Your task to perform on an android device: turn on javascript in the chrome app Image 0: 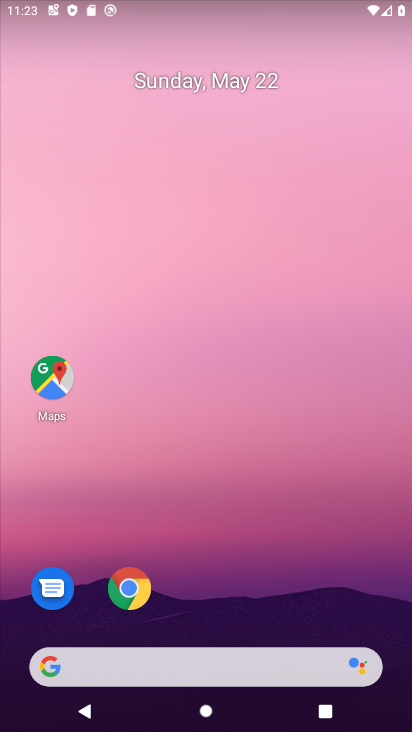
Step 0: click (127, 585)
Your task to perform on an android device: turn on javascript in the chrome app Image 1: 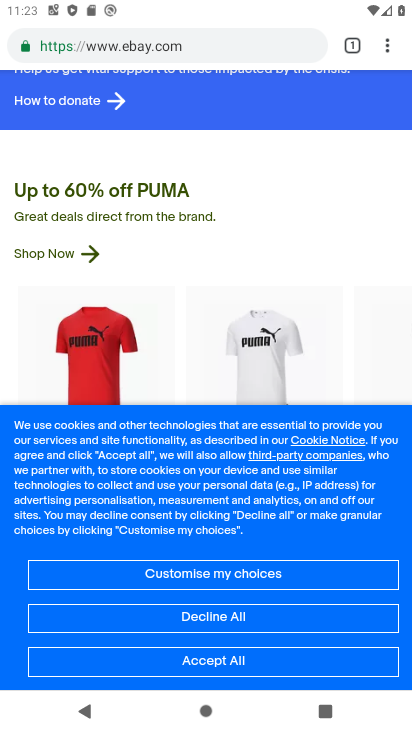
Step 1: click (356, 55)
Your task to perform on an android device: turn on javascript in the chrome app Image 2: 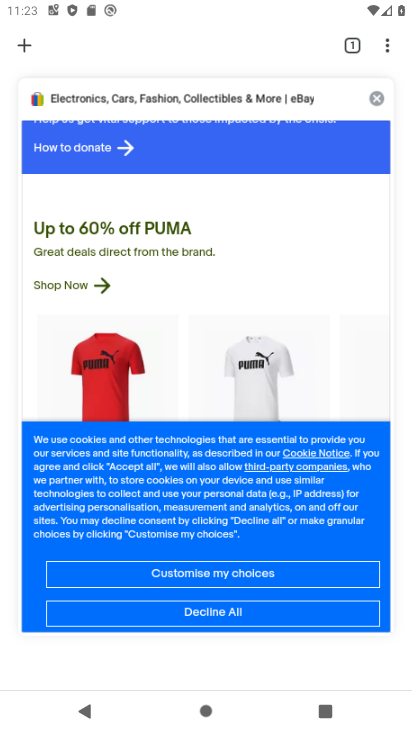
Step 2: click (353, 44)
Your task to perform on an android device: turn on javascript in the chrome app Image 3: 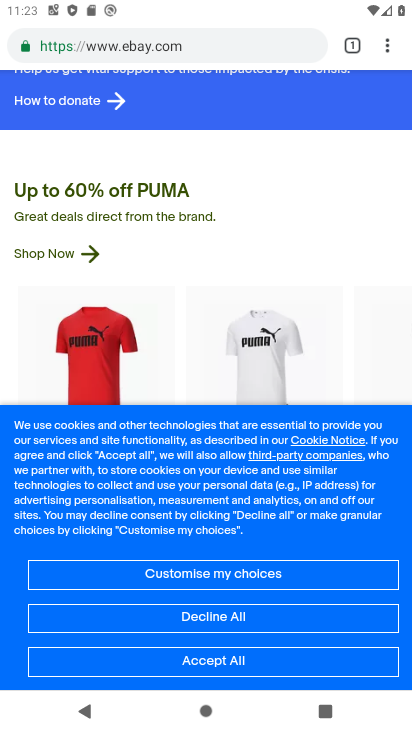
Step 3: click (352, 44)
Your task to perform on an android device: turn on javascript in the chrome app Image 4: 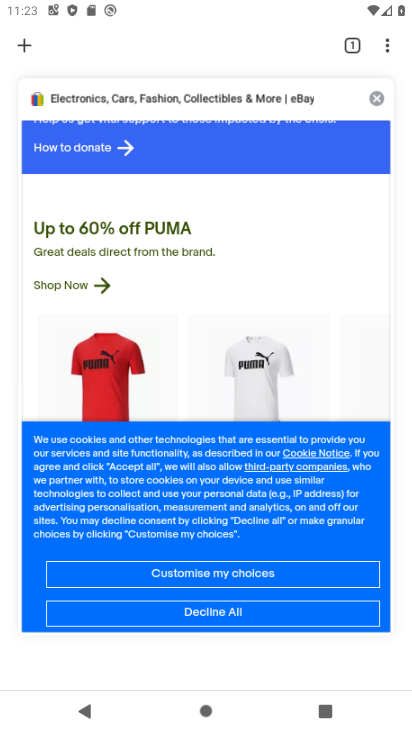
Step 4: click (374, 95)
Your task to perform on an android device: turn on javascript in the chrome app Image 5: 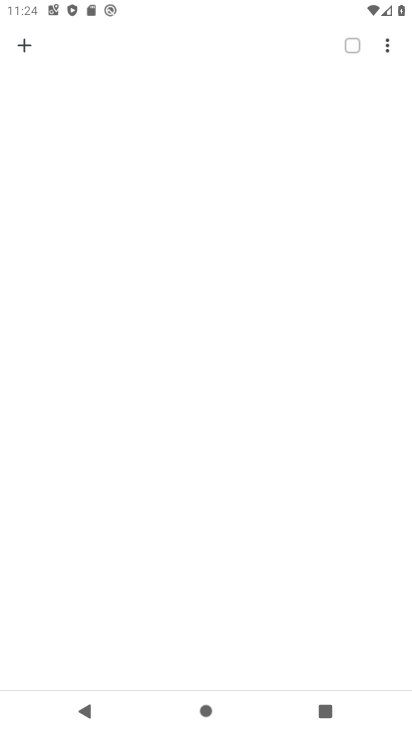
Step 5: click (25, 45)
Your task to perform on an android device: turn on javascript in the chrome app Image 6: 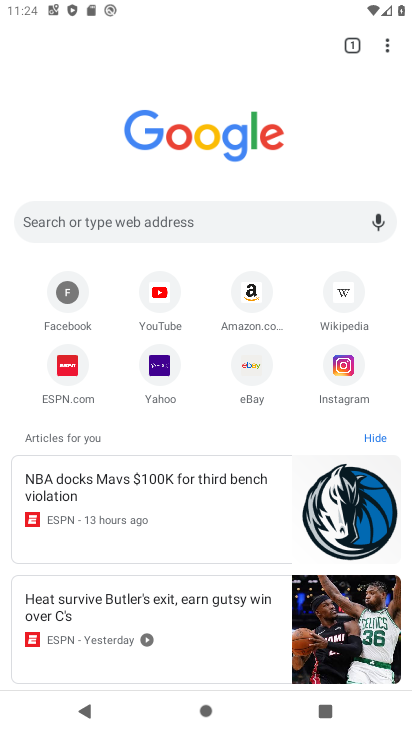
Step 6: click (387, 50)
Your task to perform on an android device: turn on javascript in the chrome app Image 7: 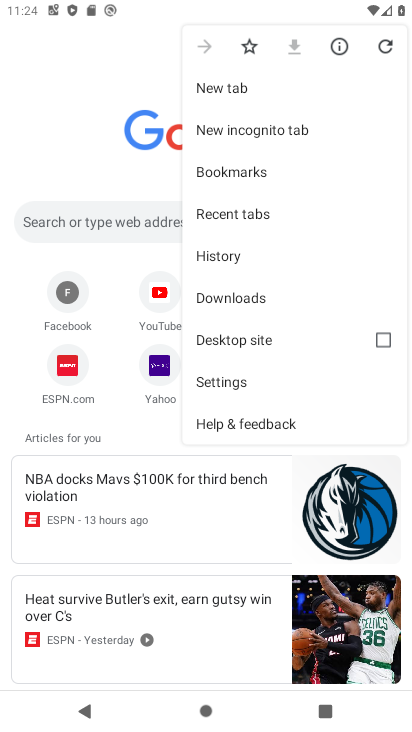
Step 7: click (235, 380)
Your task to perform on an android device: turn on javascript in the chrome app Image 8: 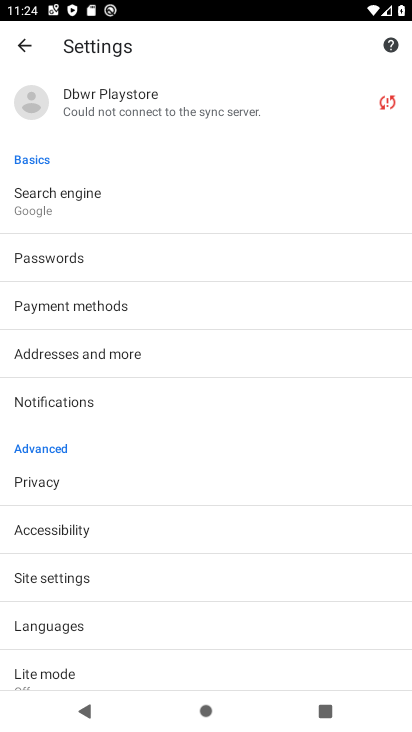
Step 8: click (66, 581)
Your task to perform on an android device: turn on javascript in the chrome app Image 9: 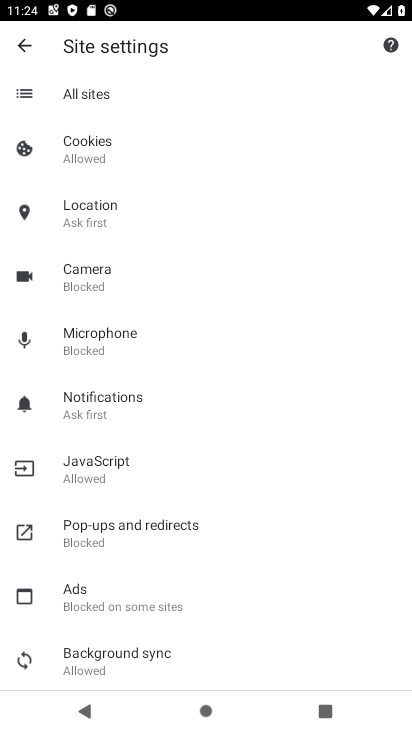
Step 9: click (107, 470)
Your task to perform on an android device: turn on javascript in the chrome app Image 10: 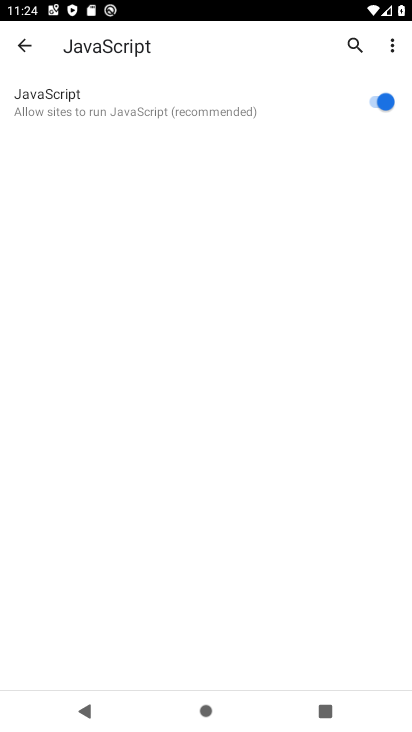
Step 10: task complete